Your task to perform on an android device: Open privacy settings Image 0: 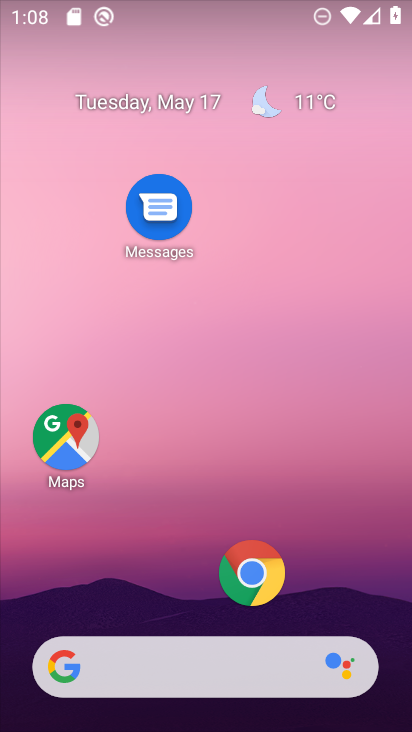
Step 0: drag from (190, 616) to (207, 98)
Your task to perform on an android device: Open privacy settings Image 1: 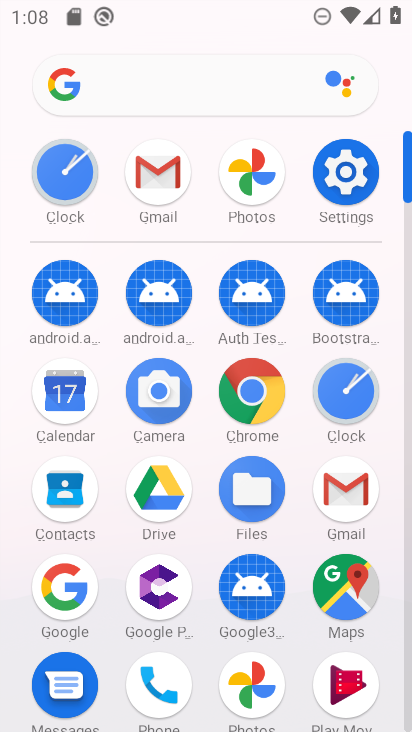
Step 1: click (343, 165)
Your task to perform on an android device: Open privacy settings Image 2: 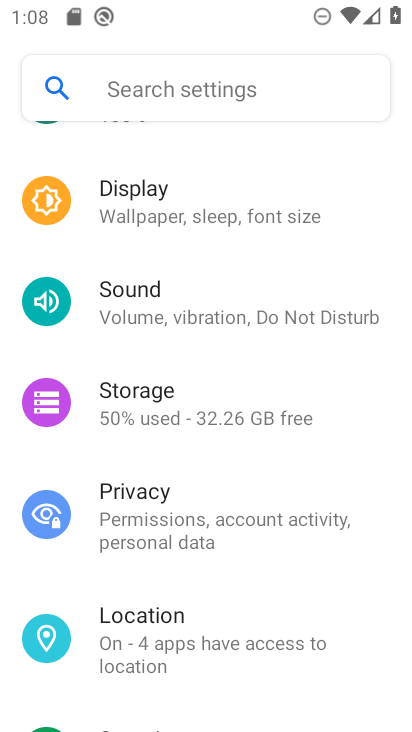
Step 2: click (180, 494)
Your task to perform on an android device: Open privacy settings Image 3: 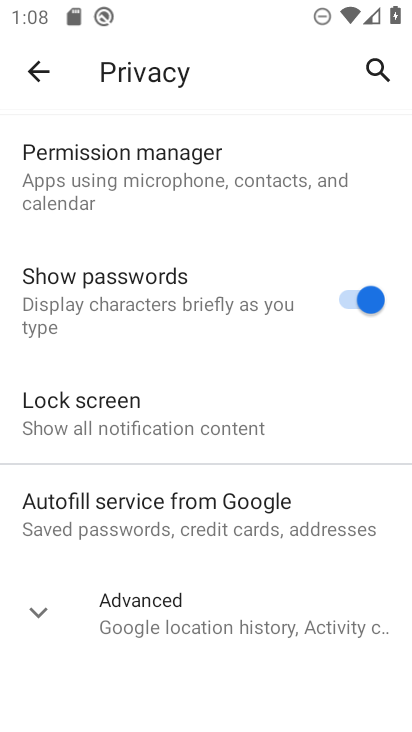
Step 3: click (34, 605)
Your task to perform on an android device: Open privacy settings Image 4: 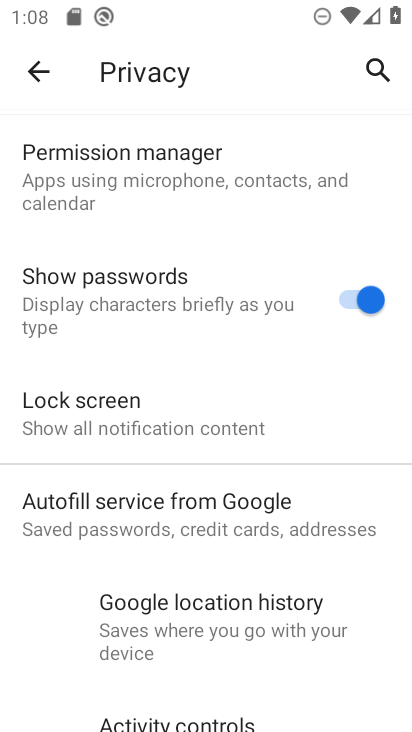
Step 4: task complete